Your task to perform on an android device: Go to Yahoo.com Image 0: 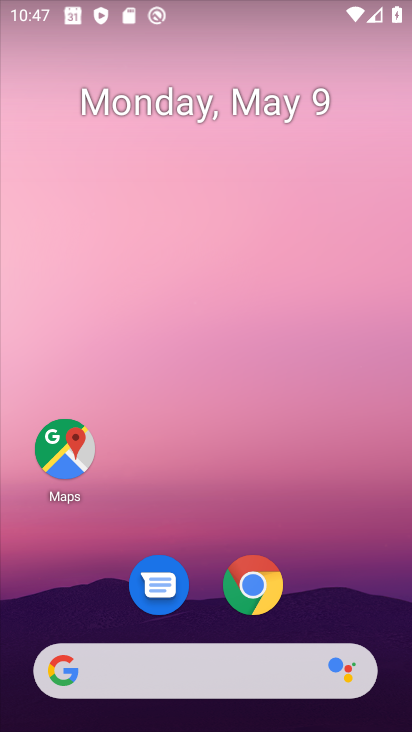
Step 0: click (265, 672)
Your task to perform on an android device: Go to Yahoo.com Image 1: 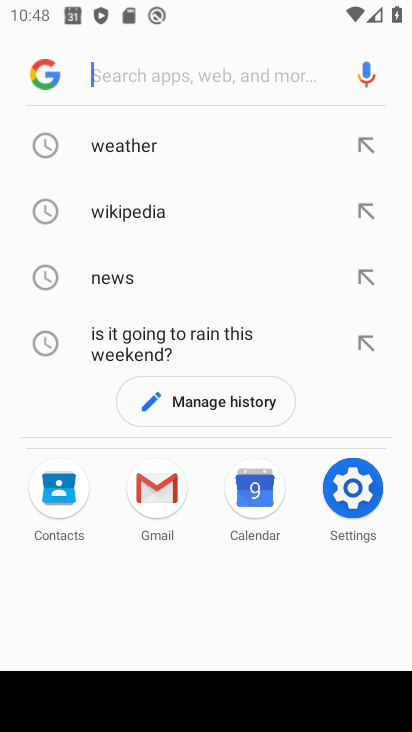
Step 1: type "yahoo.com"
Your task to perform on an android device: Go to Yahoo.com Image 2: 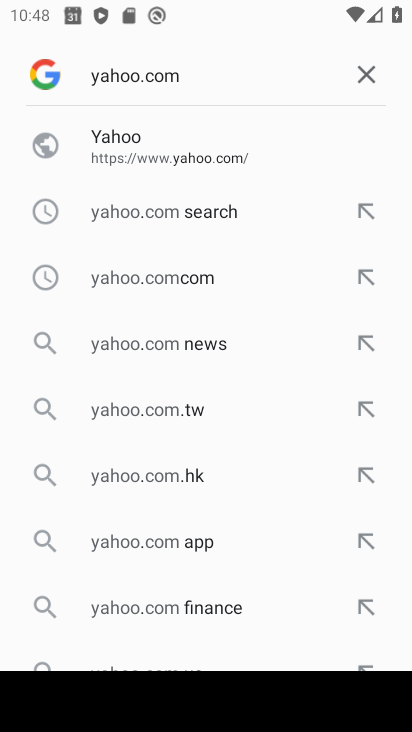
Step 2: click (54, 141)
Your task to perform on an android device: Go to Yahoo.com Image 3: 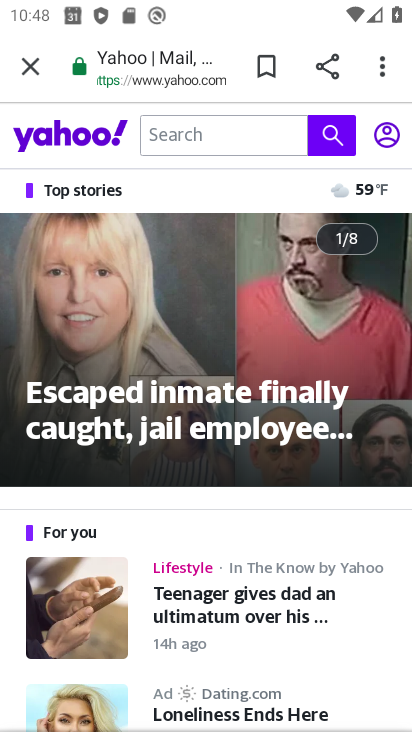
Step 3: task complete